Your task to perform on an android device: Find coffee shops on Maps Image 0: 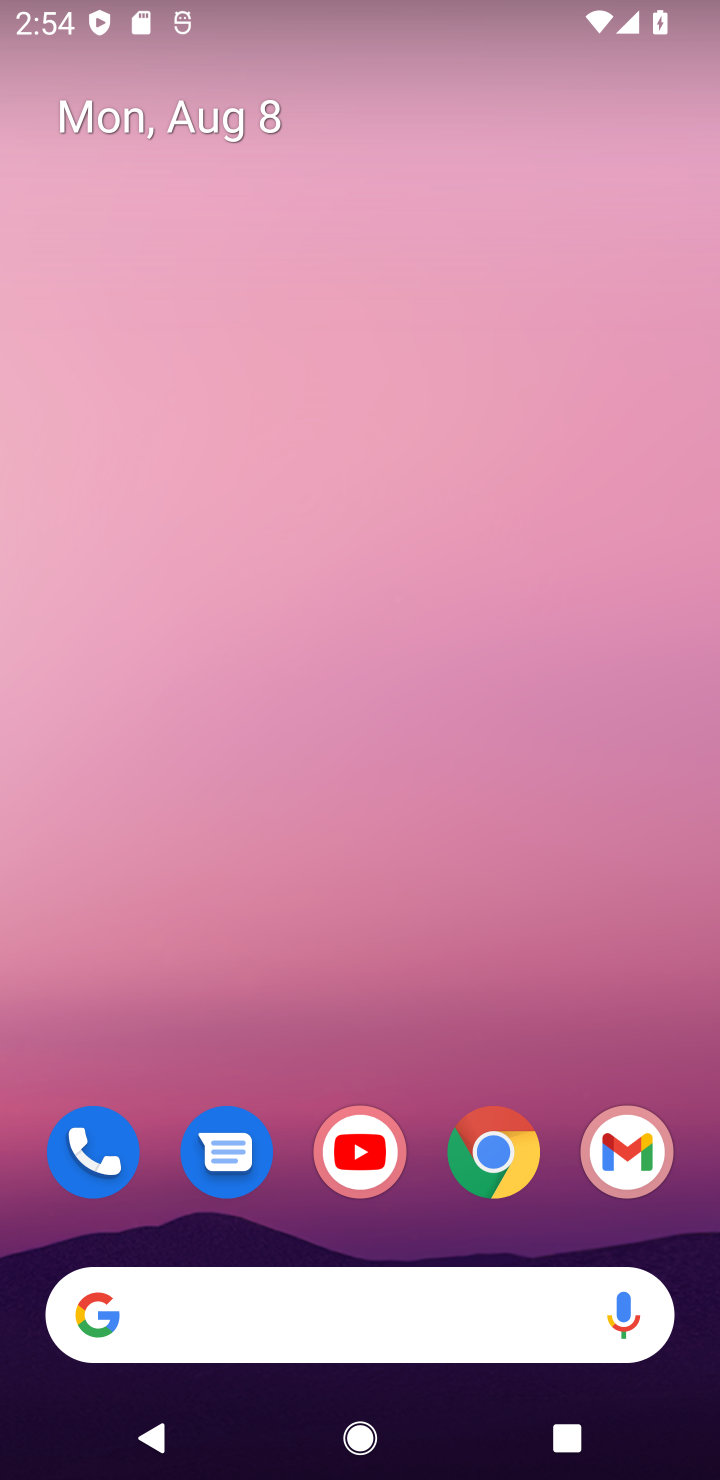
Step 0: drag from (350, 1234) to (361, 91)
Your task to perform on an android device: Find coffee shops on Maps Image 1: 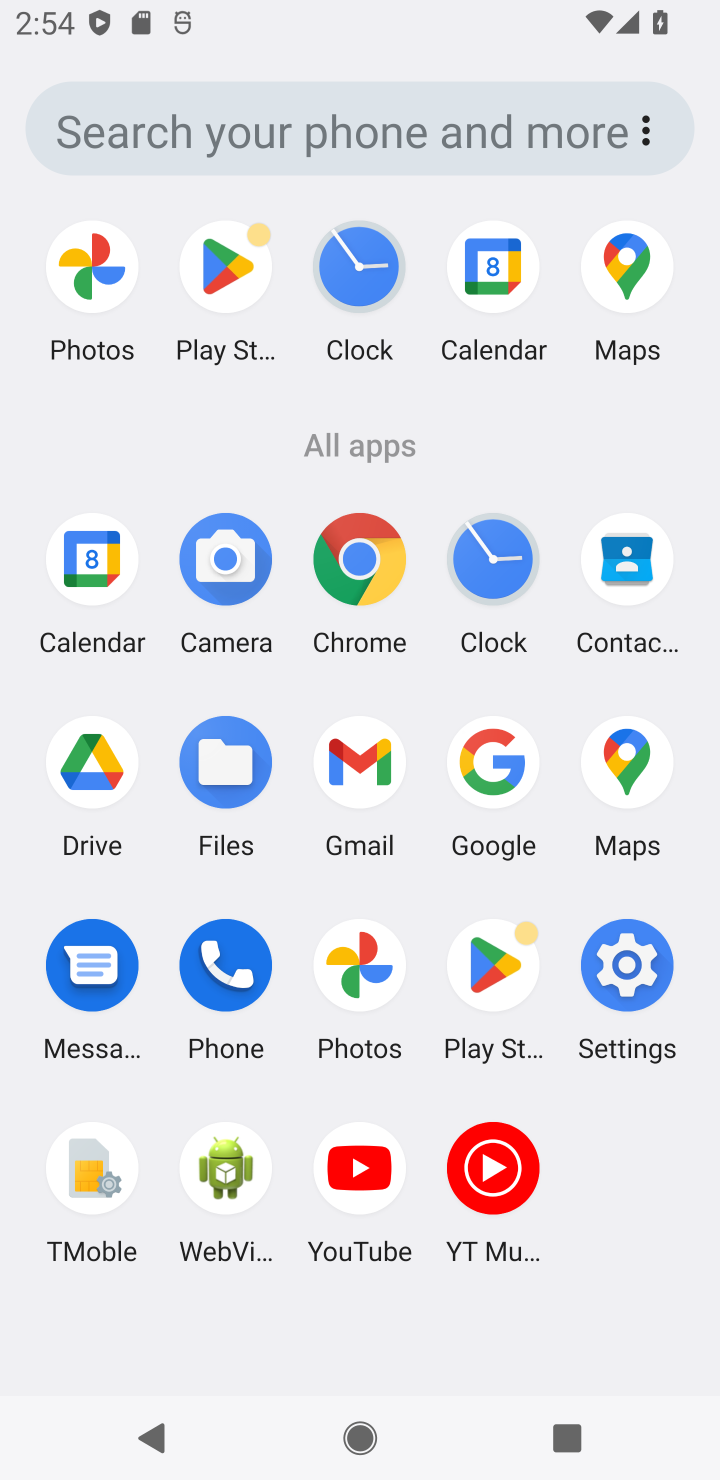
Step 1: click (627, 777)
Your task to perform on an android device: Find coffee shops on Maps Image 2: 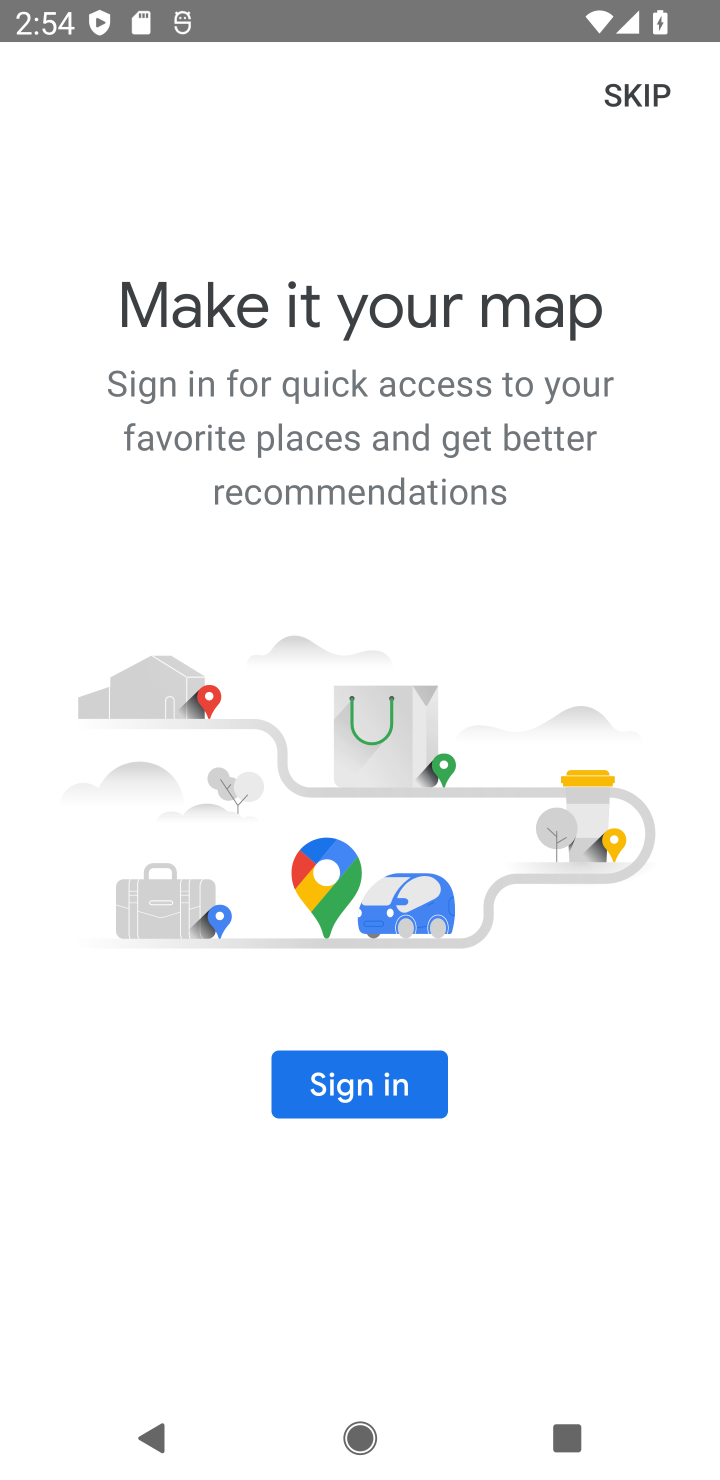
Step 2: click (627, 94)
Your task to perform on an android device: Find coffee shops on Maps Image 3: 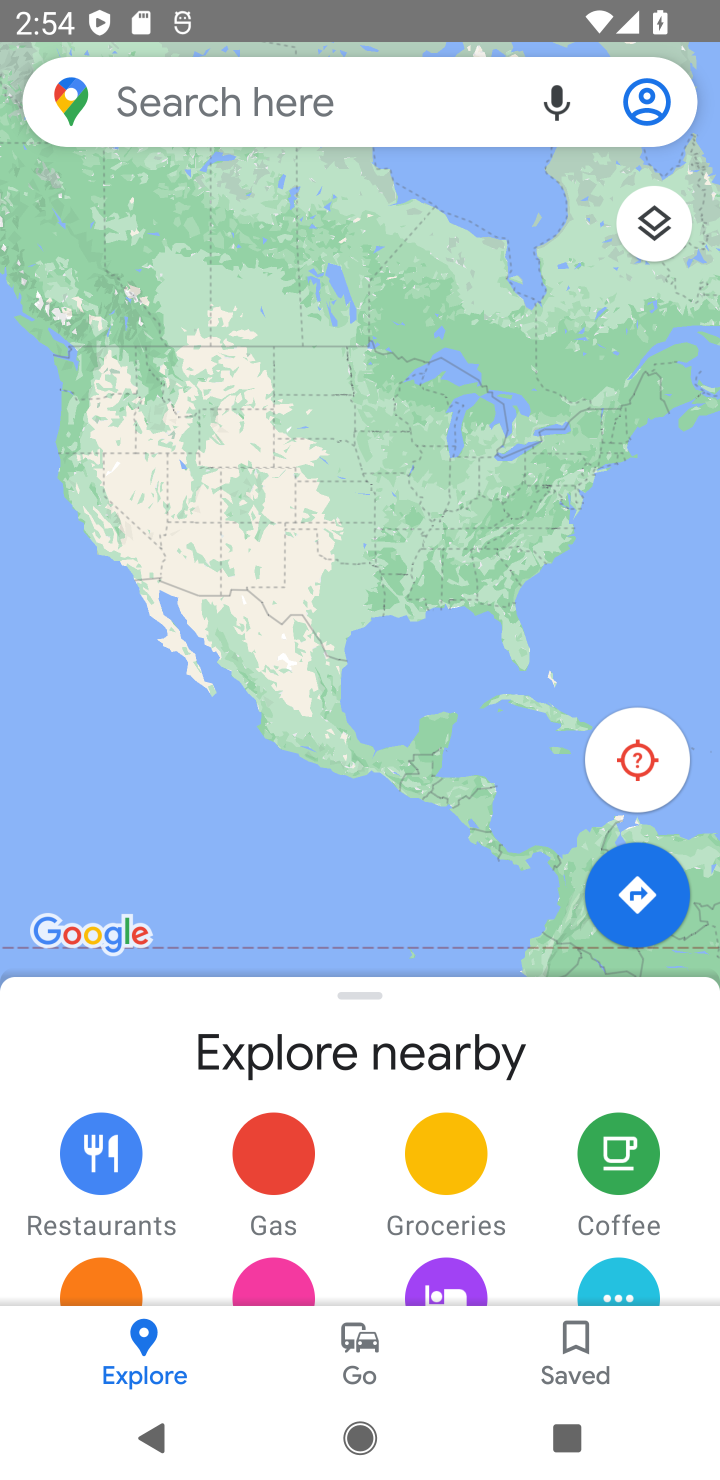
Step 3: click (312, 95)
Your task to perform on an android device: Find coffee shops on Maps Image 4: 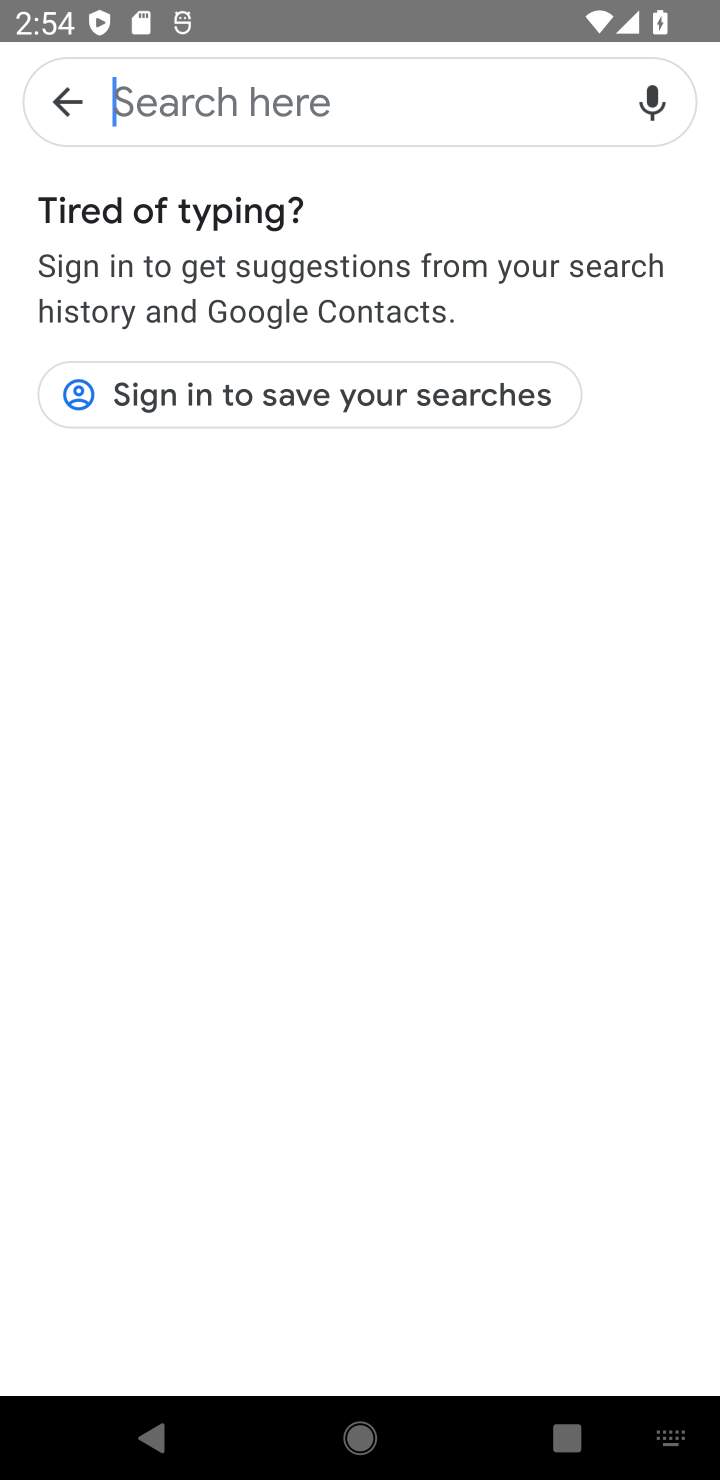
Step 4: type "coffee shops"
Your task to perform on an android device: Find coffee shops on Maps Image 5: 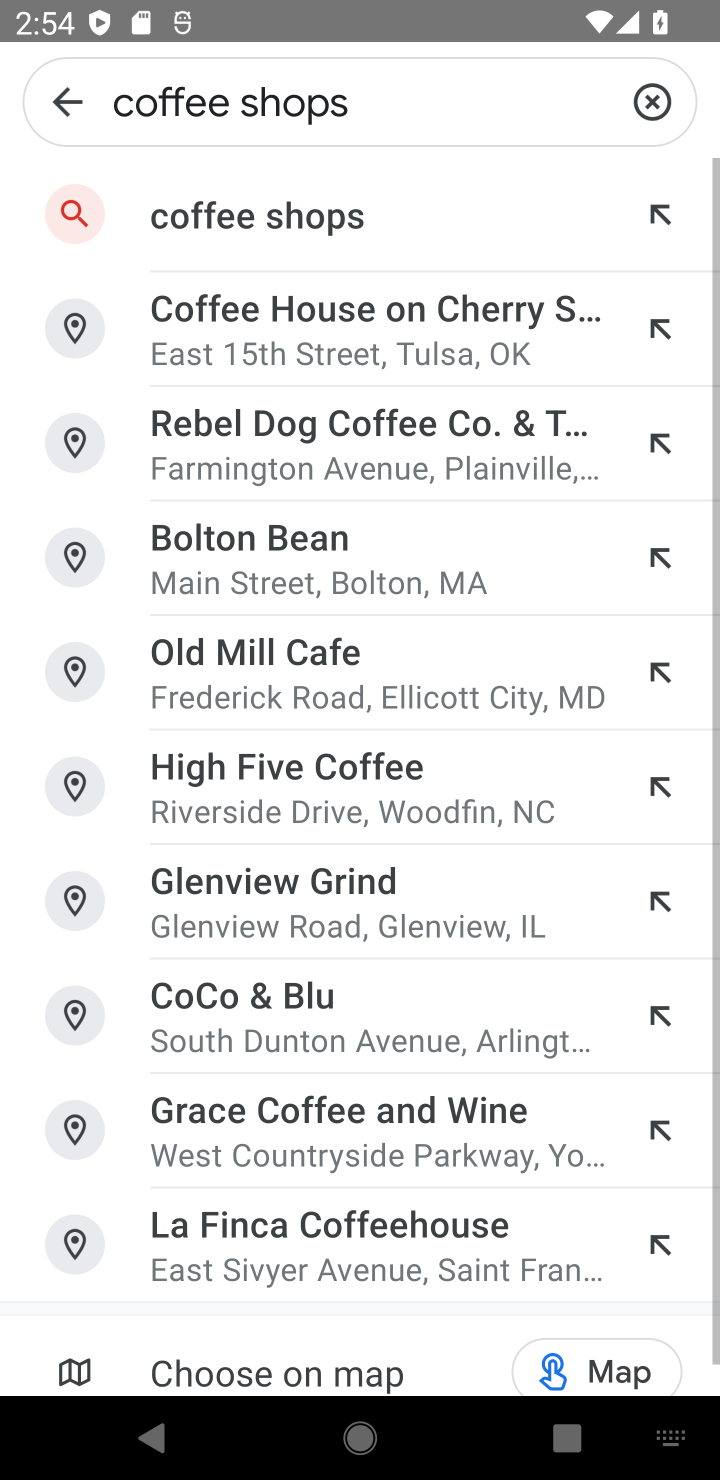
Step 5: click (277, 216)
Your task to perform on an android device: Find coffee shops on Maps Image 6: 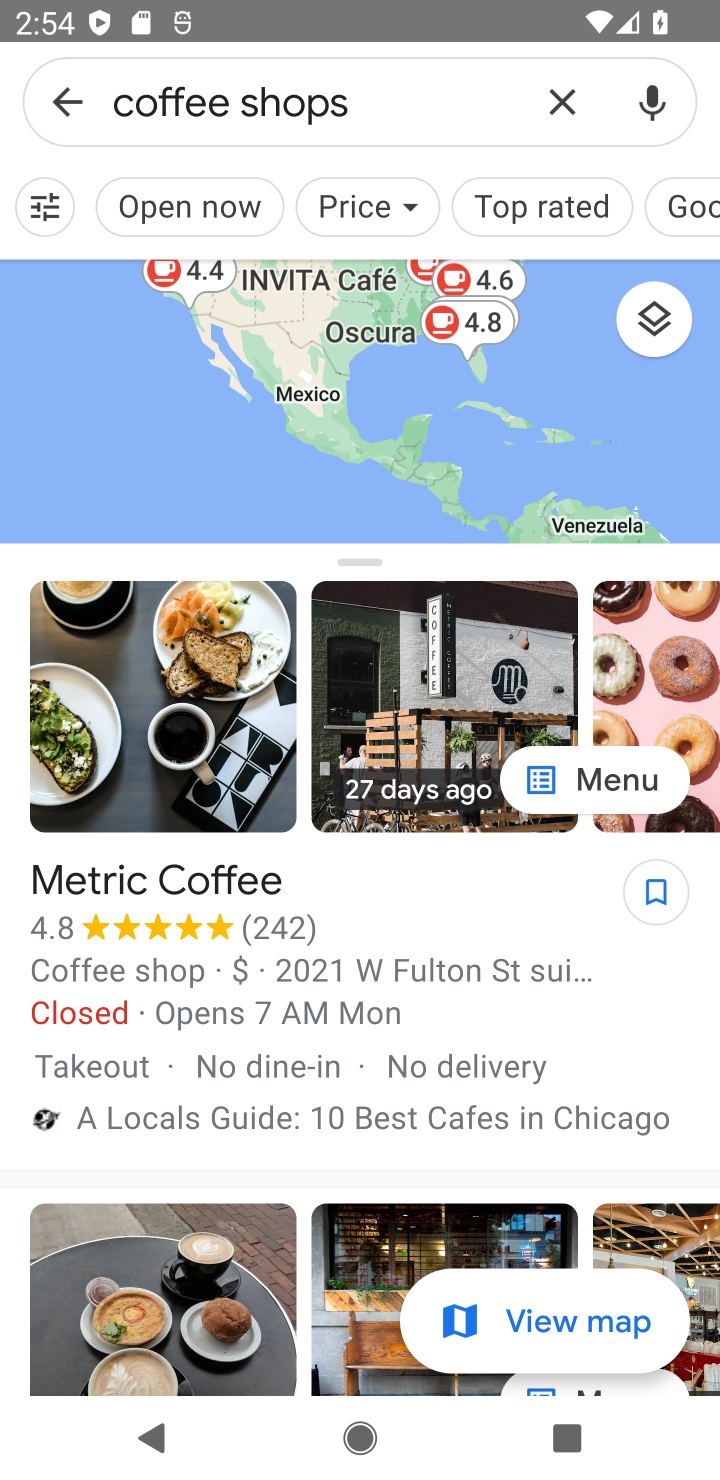
Step 6: task complete